Your task to perform on an android device: Go to accessibility settings Image 0: 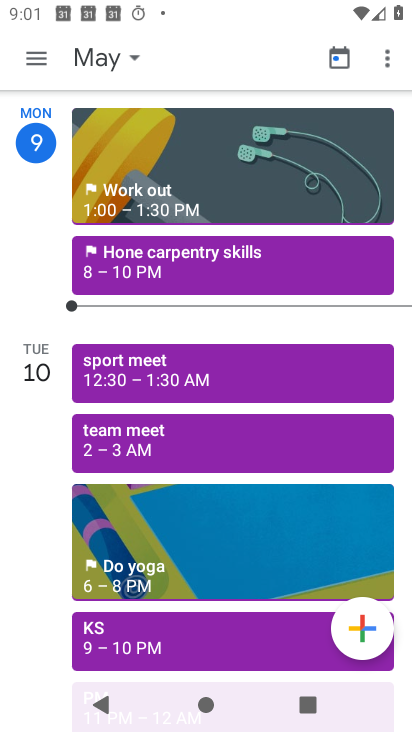
Step 0: press home button
Your task to perform on an android device: Go to accessibility settings Image 1: 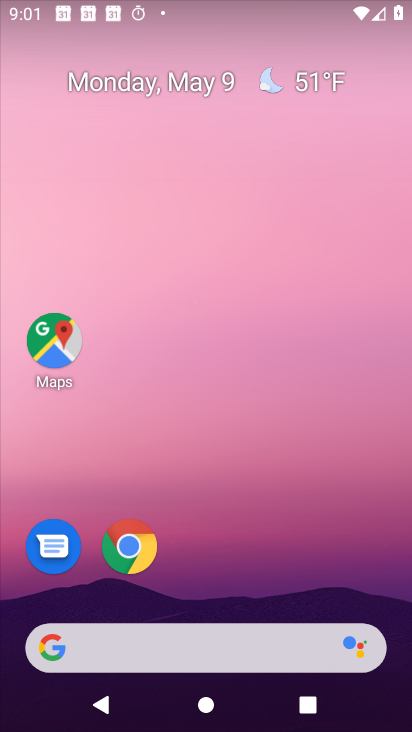
Step 1: drag from (314, 527) to (285, 79)
Your task to perform on an android device: Go to accessibility settings Image 2: 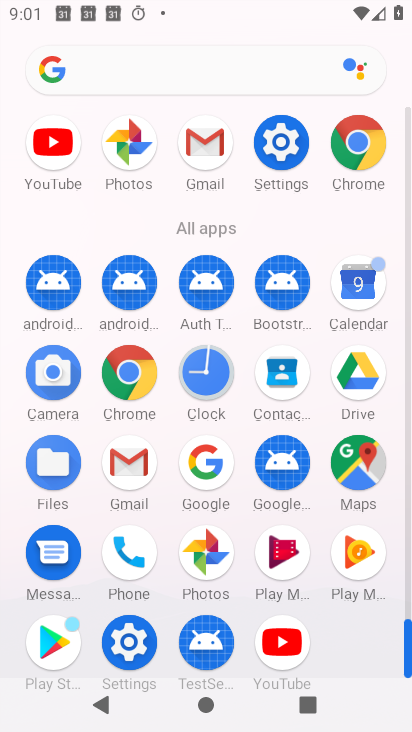
Step 2: click (116, 636)
Your task to perform on an android device: Go to accessibility settings Image 3: 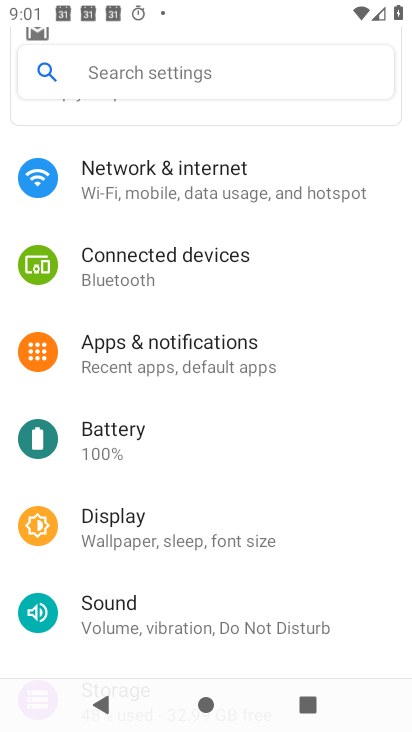
Step 3: drag from (296, 596) to (292, 231)
Your task to perform on an android device: Go to accessibility settings Image 4: 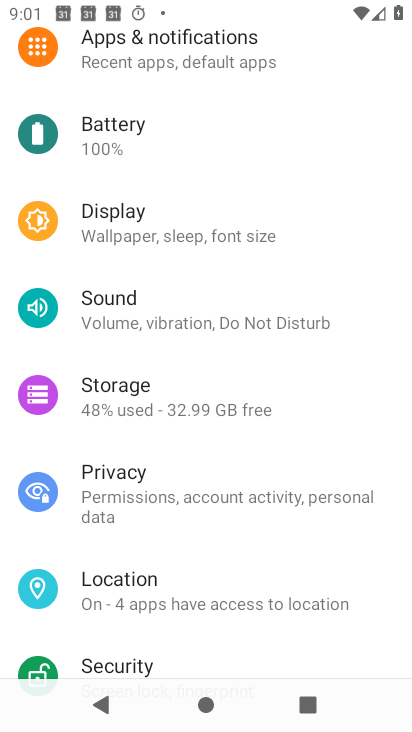
Step 4: drag from (261, 551) to (319, 233)
Your task to perform on an android device: Go to accessibility settings Image 5: 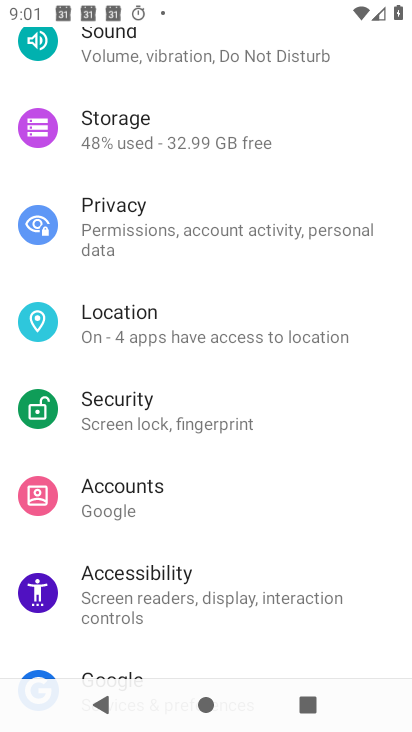
Step 5: click (99, 576)
Your task to perform on an android device: Go to accessibility settings Image 6: 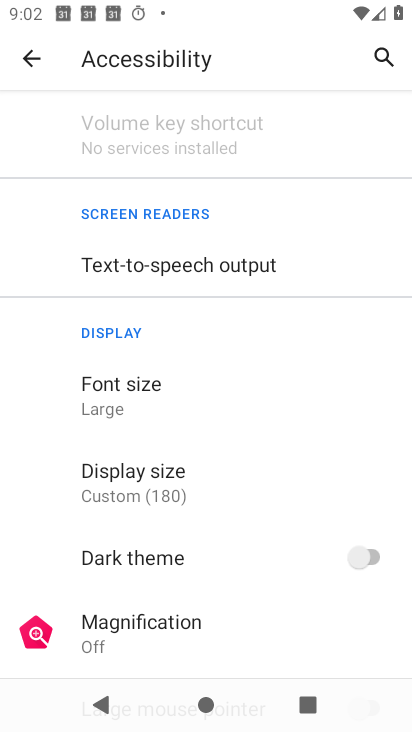
Step 6: task complete